Your task to perform on an android device: open device folders in google photos Image 0: 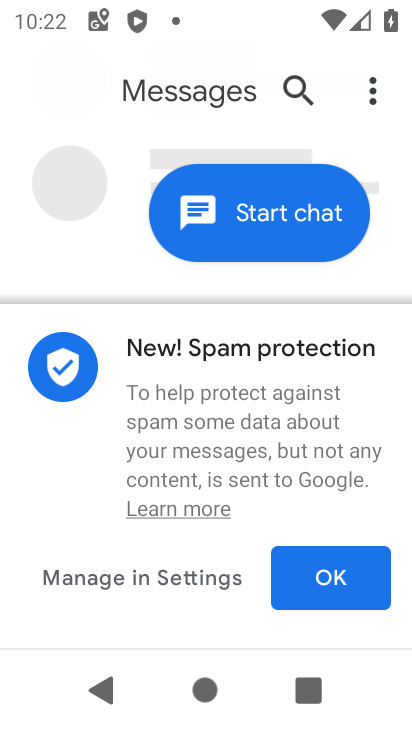
Step 0: press home button
Your task to perform on an android device: open device folders in google photos Image 1: 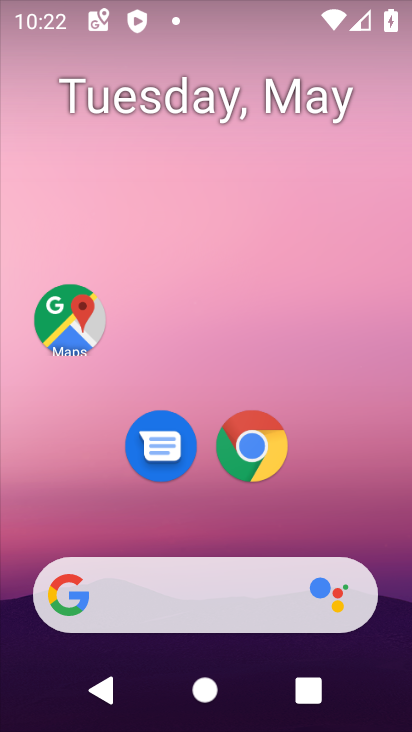
Step 1: drag from (216, 481) to (243, 136)
Your task to perform on an android device: open device folders in google photos Image 2: 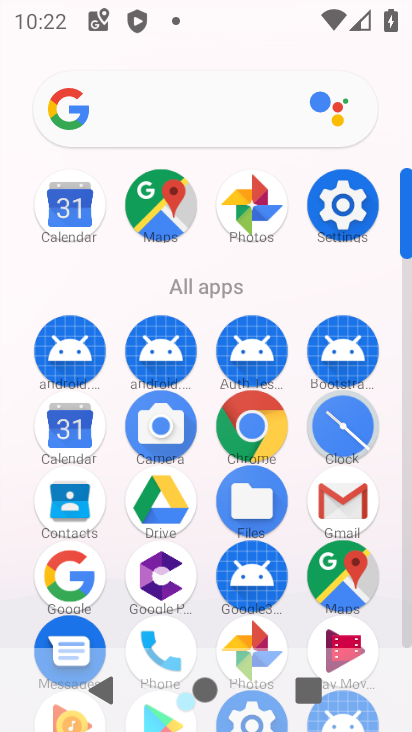
Step 2: click (253, 630)
Your task to perform on an android device: open device folders in google photos Image 3: 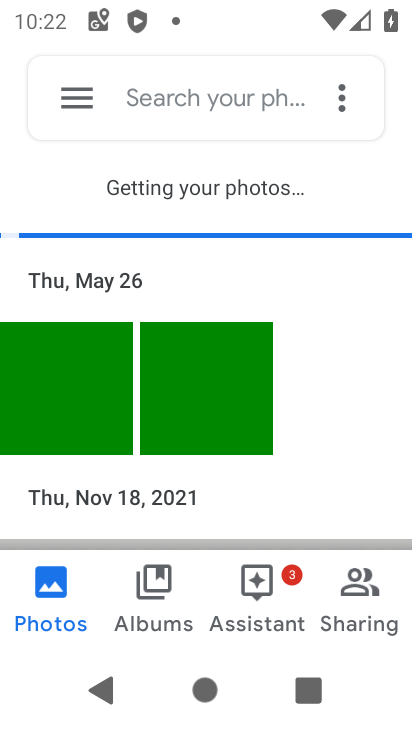
Step 3: click (87, 106)
Your task to perform on an android device: open device folders in google photos Image 4: 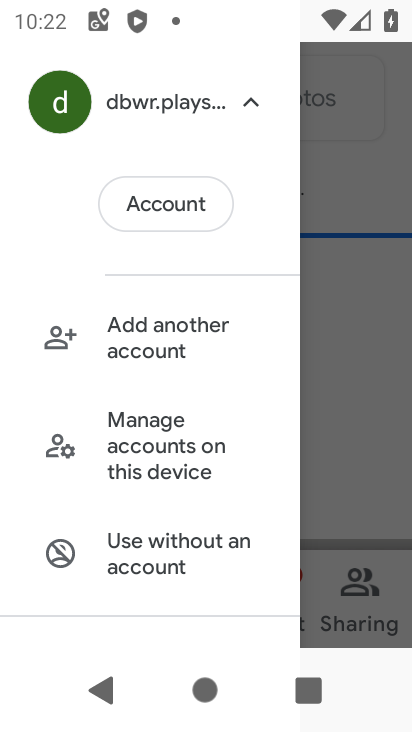
Step 4: drag from (167, 433) to (182, 263)
Your task to perform on an android device: open device folders in google photos Image 5: 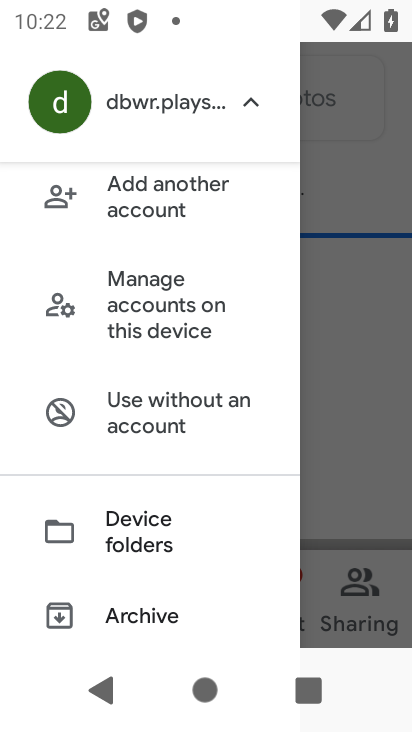
Step 5: click (141, 531)
Your task to perform on an android device: open device folders in google photos Image 6: 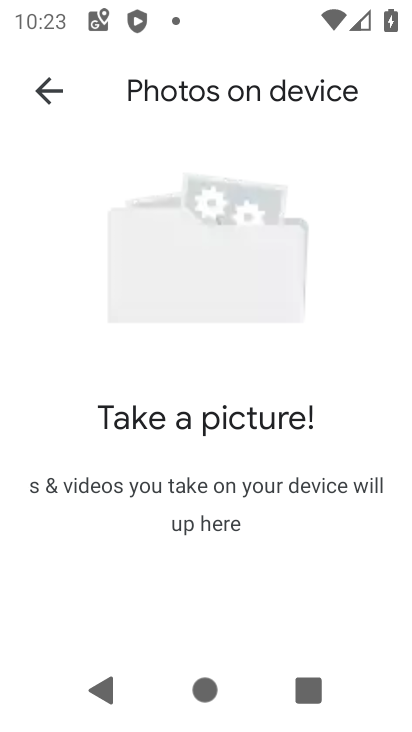
Step 6: task complete